Your task to perform on an android device: check data usage Image 0: 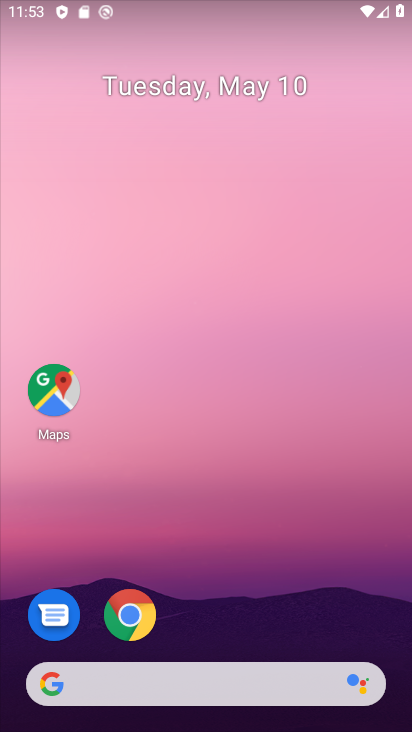
Step 0: drag from (250, 286) to (250, 208)
Your task to perform on an android device: check data usage Image 1: 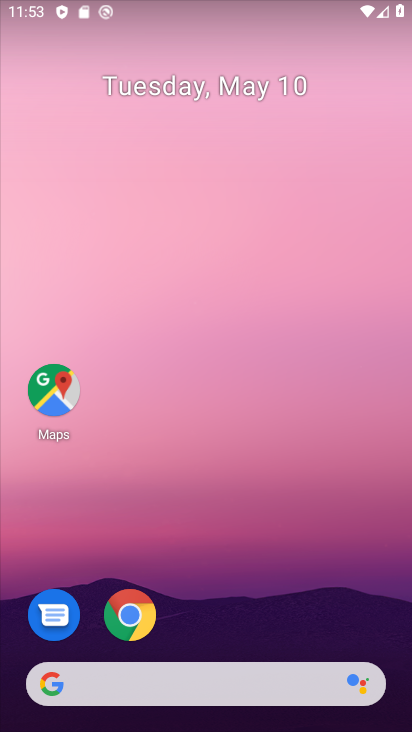
Step 1: drag from (278, 589) to (247, 30)
Your task to perform on an android device: check data usage Image 2: 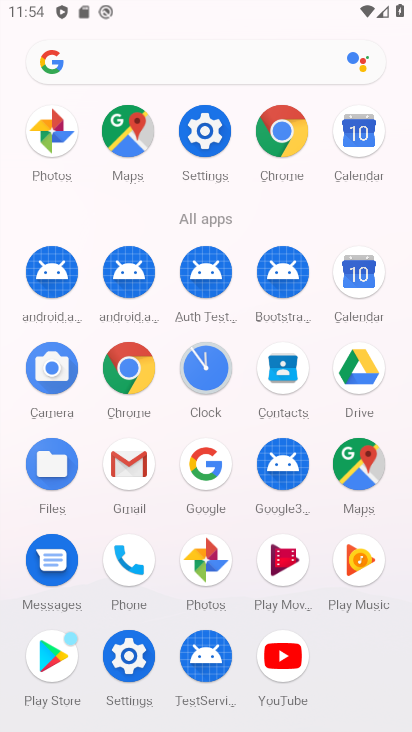
Step 2: click (138, 659)
Your task to perform on an android device: check data usage Image 3: 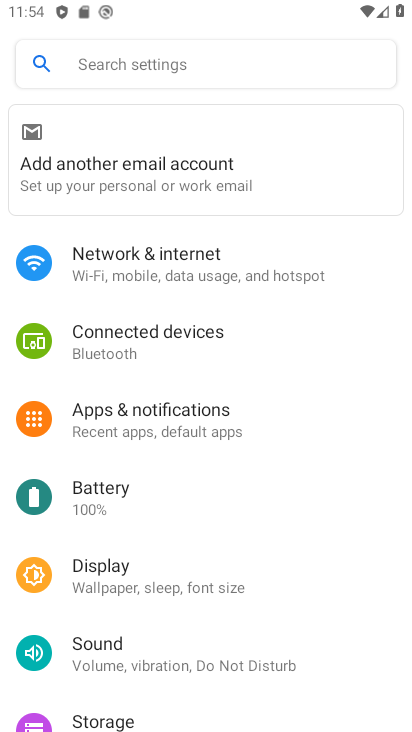
Step 3: click (142, 265)
Your task to perform on an android device: check data usage Image 4: 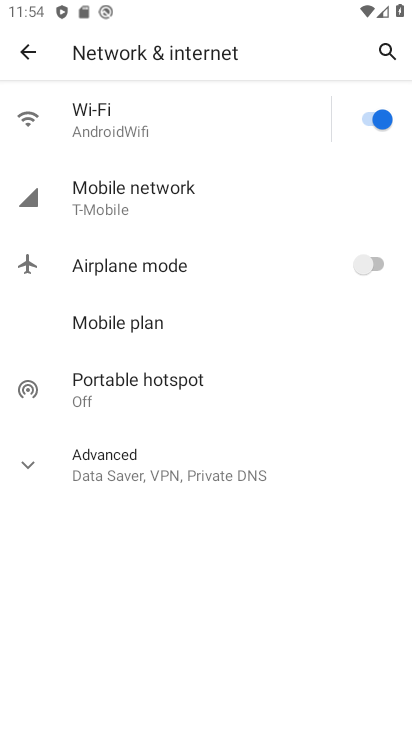
Step 4: click (128, 198)
Your task to perform on an android device: check data usage Image 5: 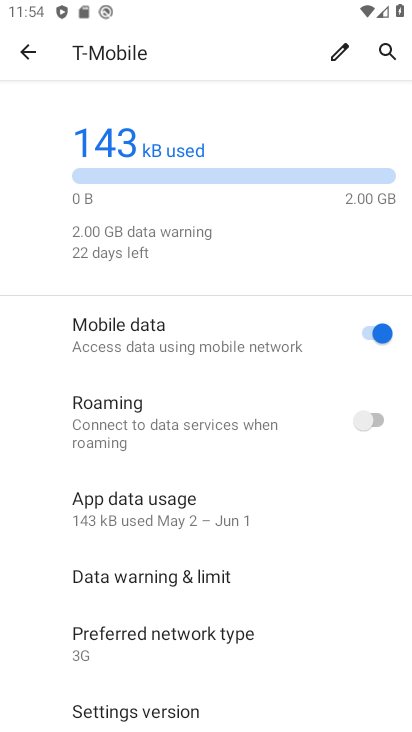
Step 5: task complete